Your task to perform on an android device: Open internet settings Image 0: 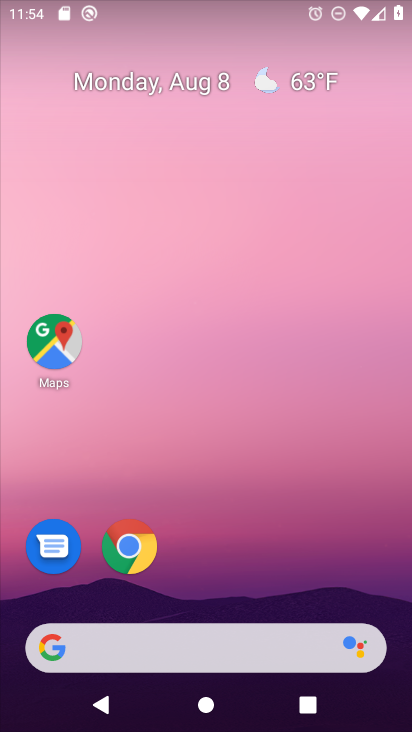
Step 0: drag from (213, 598) to (265, 148)
Your task to perform on an android device: Open internet settings Image 1: 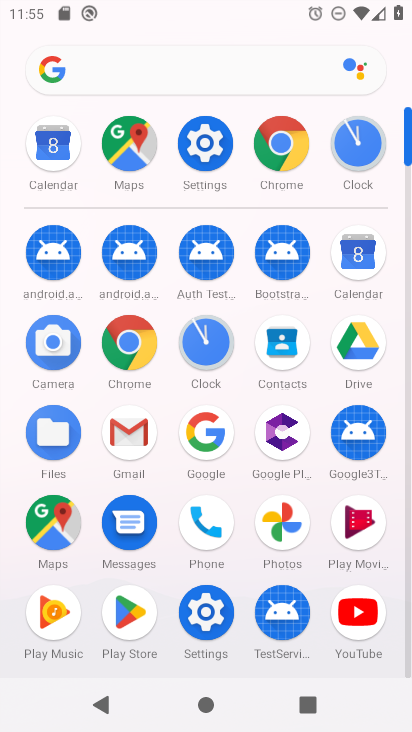
Step 1: click (200, 143)
Your task to perform on an android device: Open internet settings Image 2: 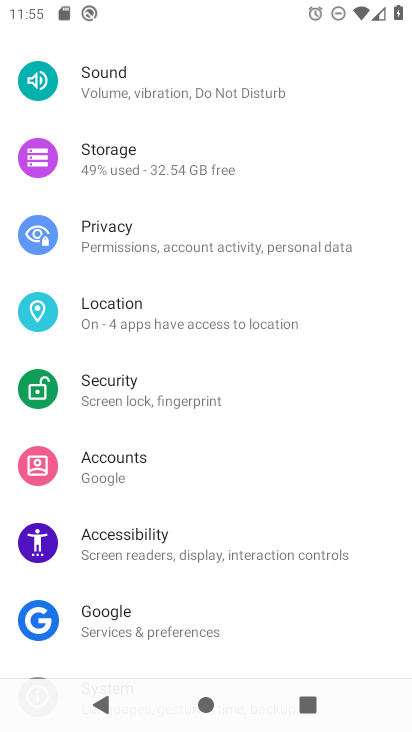
Step 2: drag from (130, 113) to (196, 709)
Your task to perform on an android device: Open internet settings Image 3: 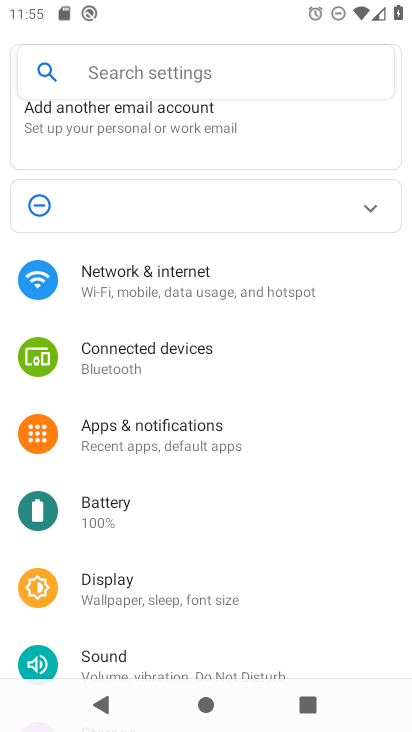
Step 3: click (166, 289)
Your task to perform on an android device: Open internet settings Image 4: 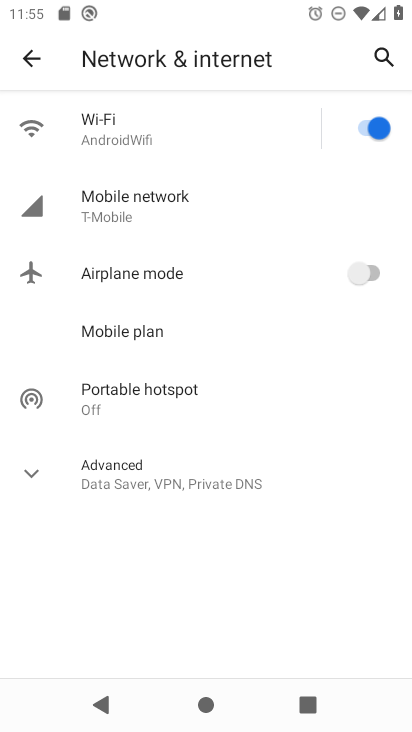
Step 4: click (27, 473)
Your task to perform on an android device: Open internet settings Image 5: 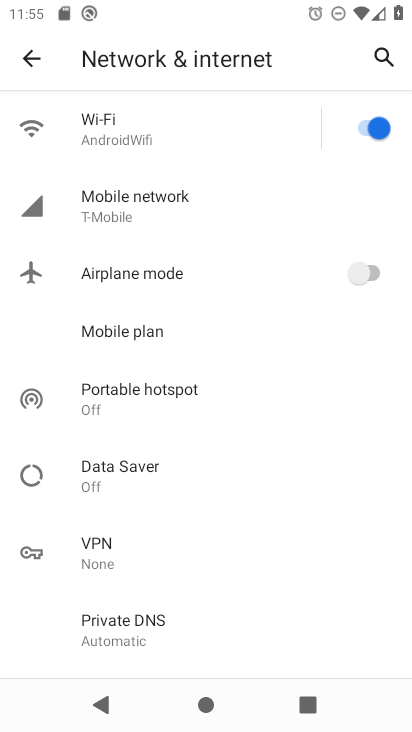
Step 5: task complete